Your task to perform on an android device: What's on my calendar today? Image 0: 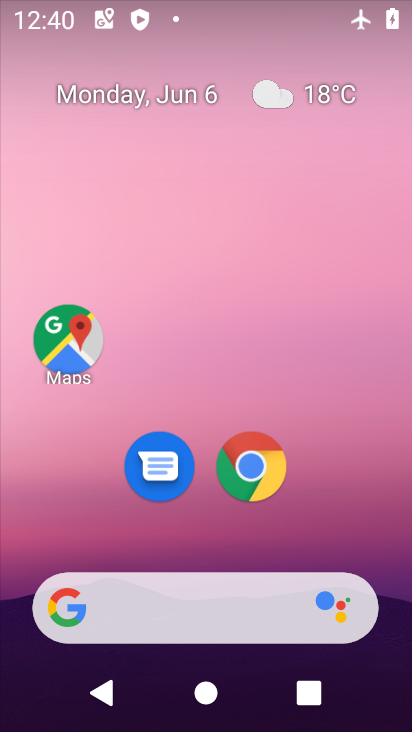
Step 0: drag from (356, 507) to (230, 22)
Your task to perform on an android device: What's on my calendar today? Image 1: 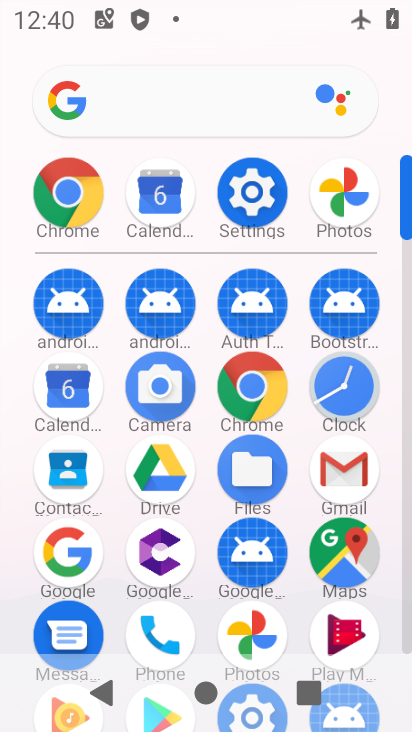
Step 1: drag from (27, 556) to (23, 250)
Your task to perform on an android device: What's on my calendar today? Image 2: 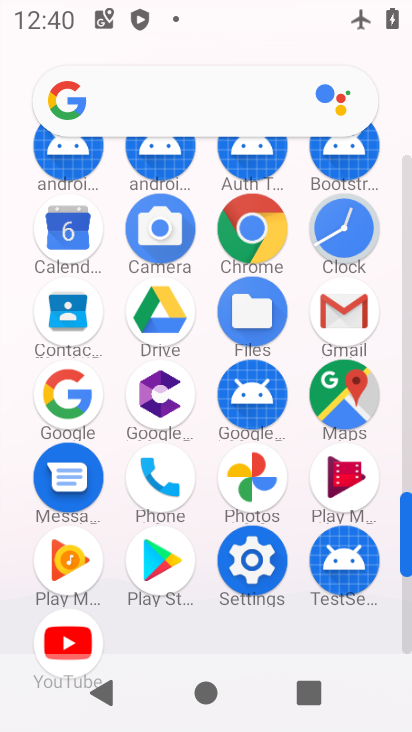
Step 2: click (69, 222)
Your task to perform on an android device: What's on my calendar today? Image 3: 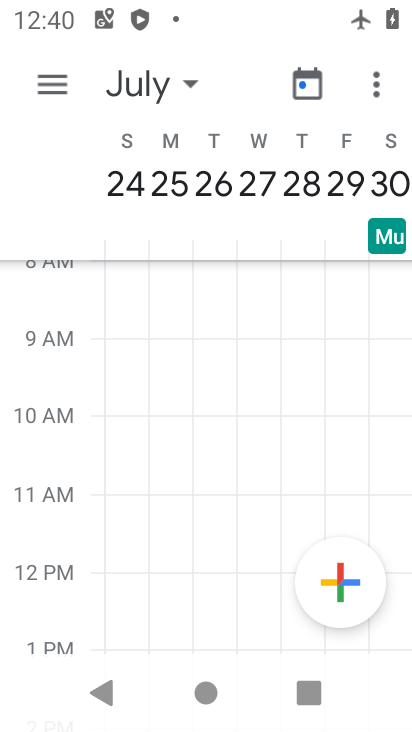
Step 3: click (302, 77)
Your task to perform on an android device: What's on my calendar today? Image 4: 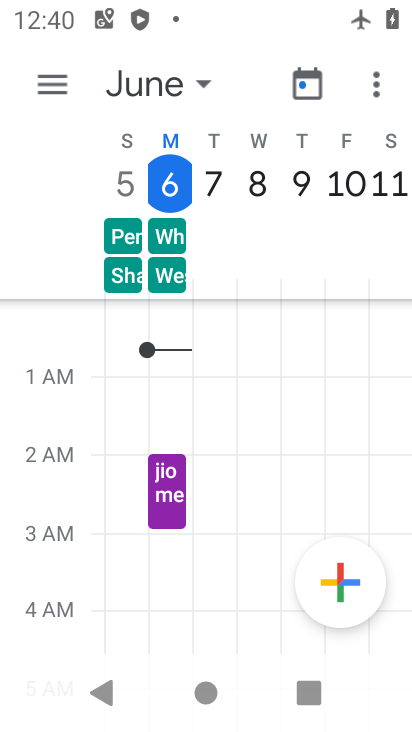
Step 4: click (168, 173)
Your task to perform on an android device: What's on my calendar today? Image 5: 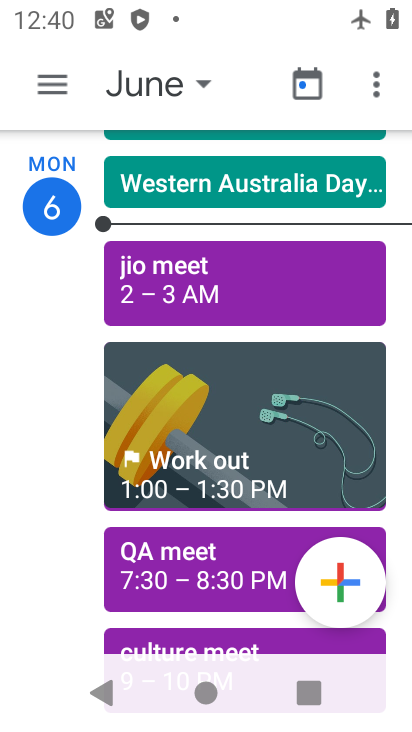
Step 5: task complete